Your task to perform on an android device: turn off sleep mode Image 0: 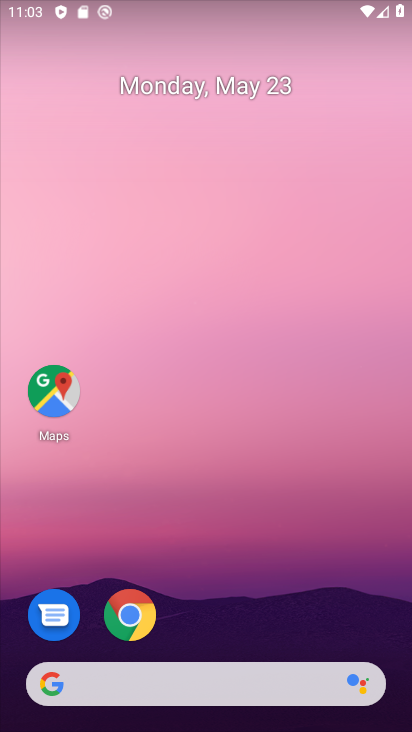
Step 0: drag from (214, 624) to (252, 99)
Your task to perform on an android device: turn off sleep mode Image 1: 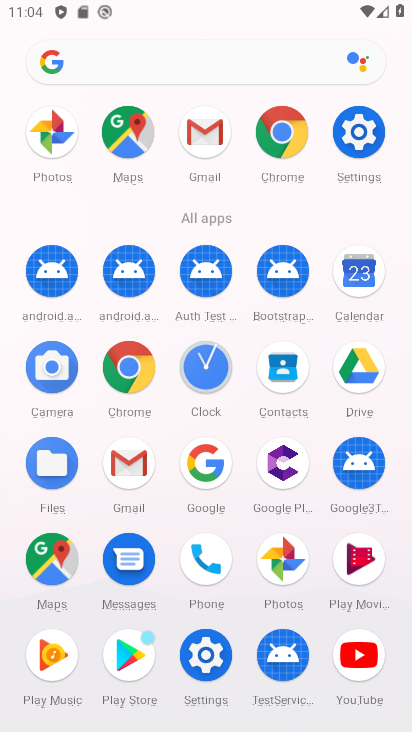
Step 1: click (357, 126)
Your task to perform on an android device: turn off sleep mode Image 2: 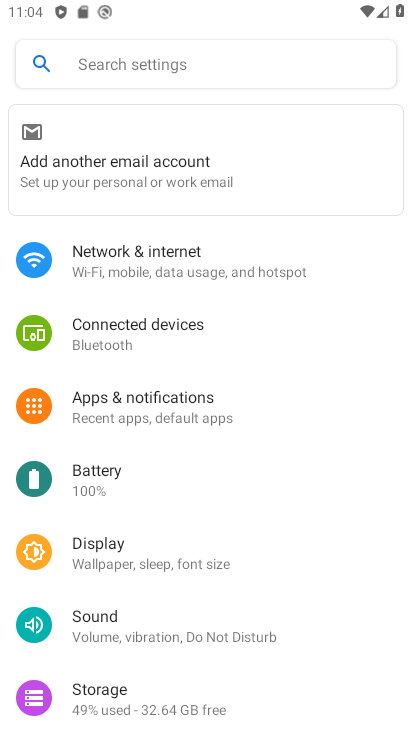
Step 2: task complete